Your task to perform on an android device: Search for vegetarian restaurants on Maps Image 0: 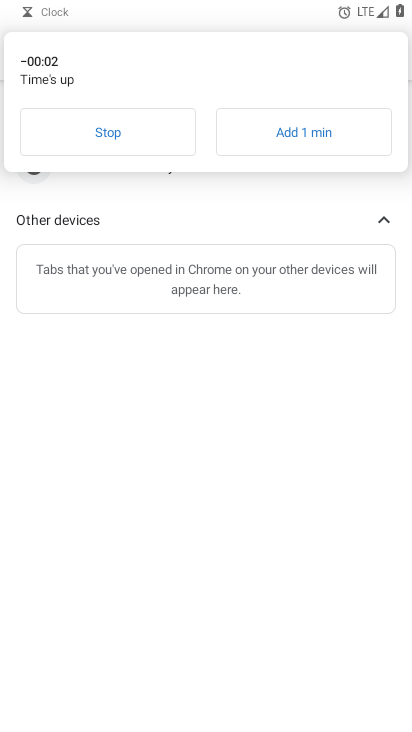
Step 0: click (103, 116)
Your task to perform on an android device: Search for vegetarian restaurants on Maps Image 1: 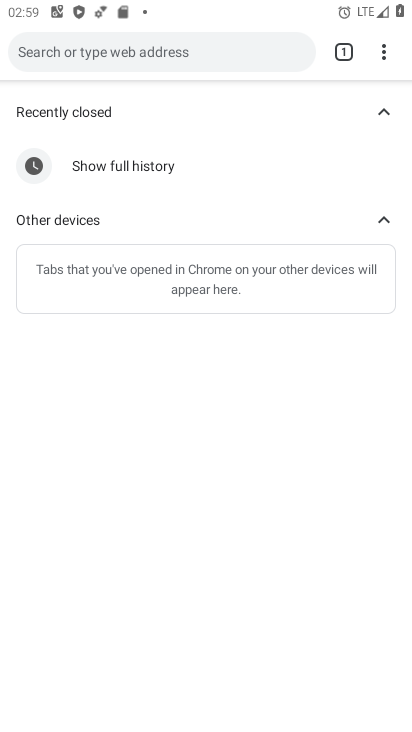
Step 1: press home button
Your task to perform on an android device: Search for vegetarian restaurants on Maps Image 2: 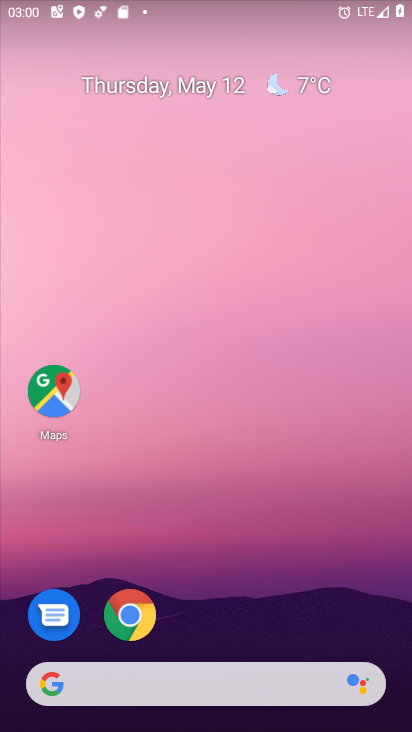
Step 2: click (54, 412)
Your task to perform on an android device: Search for vegetarian restaurants on Maps Image 3: 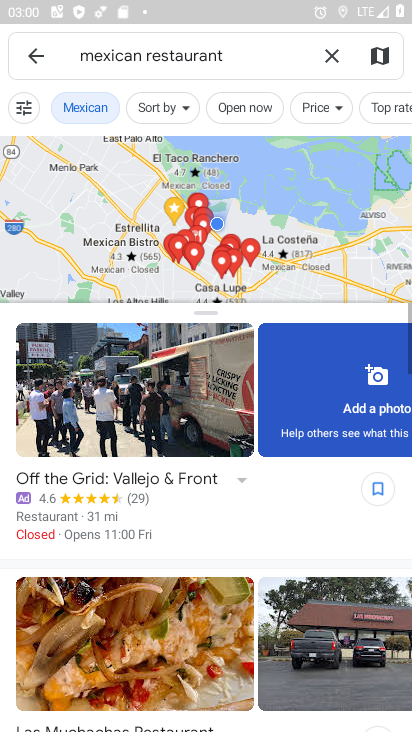
Step 3: click (339, 50)
Your task to perform on an android device: Search for vegetarian restaurants on Maps Image 4: 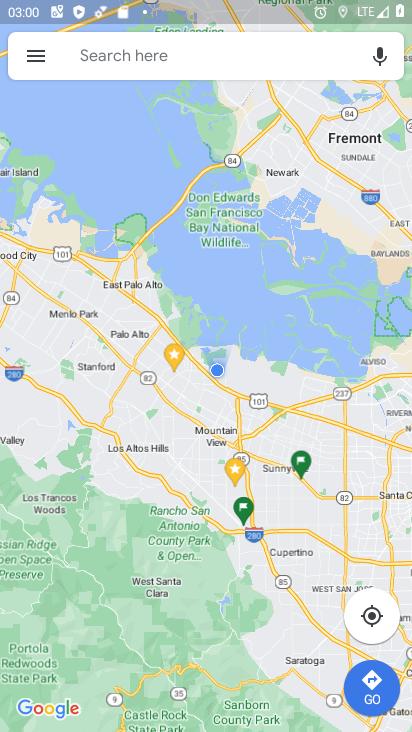
Step 4: click (199, 54)
Your task to perform on an android device: Search for vegetarian restaurants on Maps Image 5: 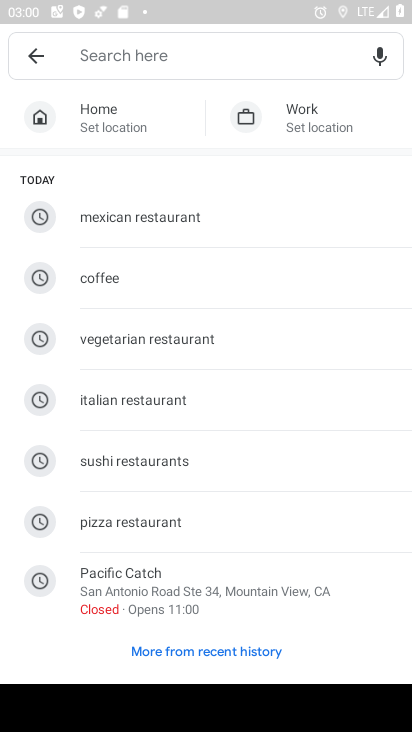
Step 5: click (174, 332)
Your task to perform on an android device: Search for vegetarian restaurants on Maps Image 6: 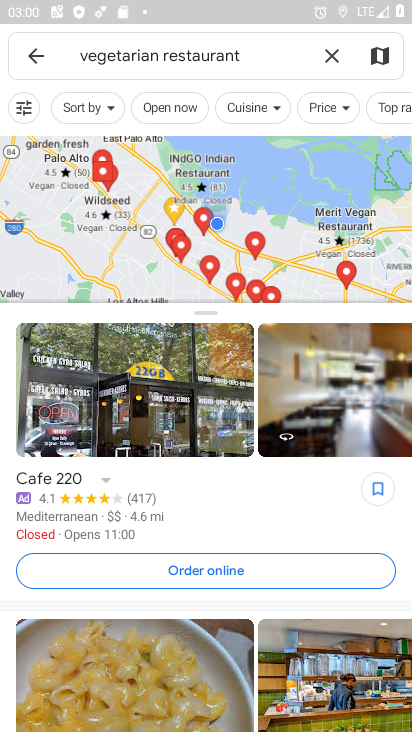
Step 6: task complete